Your task to perform on an android device: Go to accessibility settings Image 0: 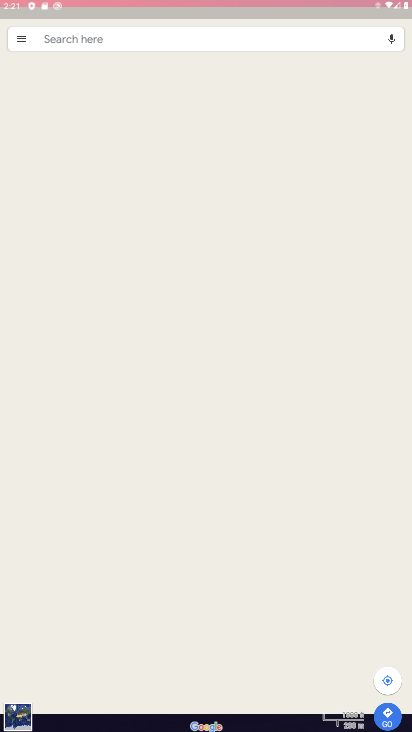
Step 0: drag from (274, 665) to (291, 175)
Your task to perform on an android device: Go to accessibility settings Image 1: 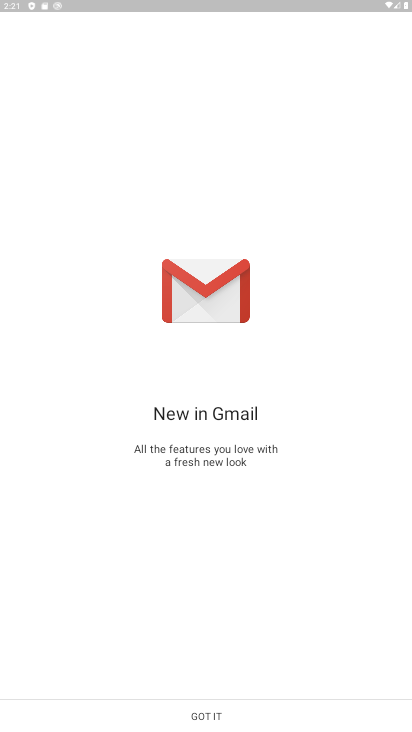
Step 1: press home button
Your task to perform on an android device: Go to accessibility settings Image 2: 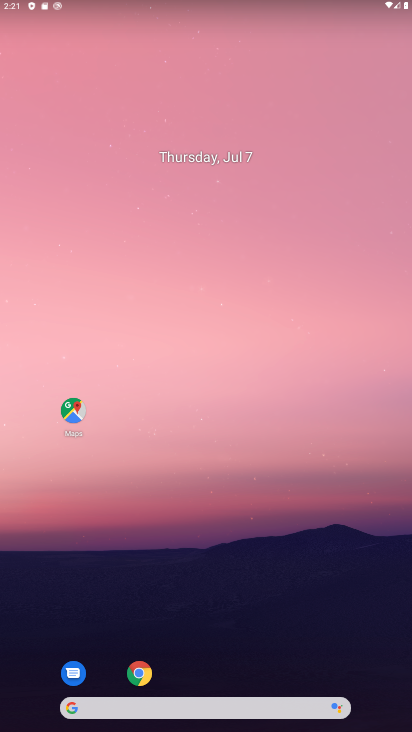
Step 2: drag from (191, 666) to (162, 158)
Your task to perform on an android device: Go to accessibility settings Image 3: 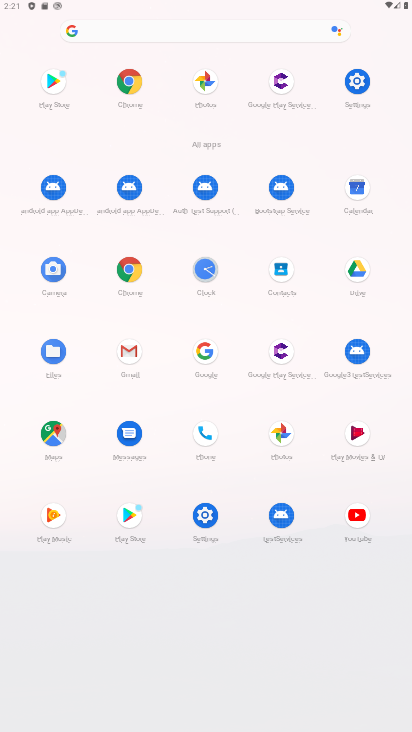
Step 3: click (352, 89)
Your task to perform on an android device: Go to accessibility settings Image 4: 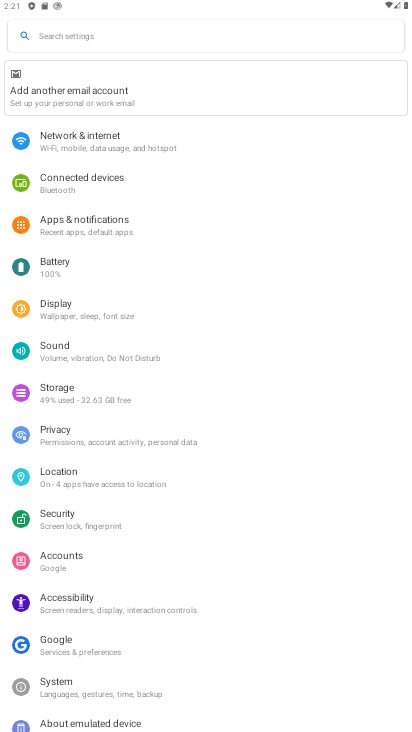
Step 4: click (99, 605)
Your task to perform on an android device: Go to accessibility settings Image 5: 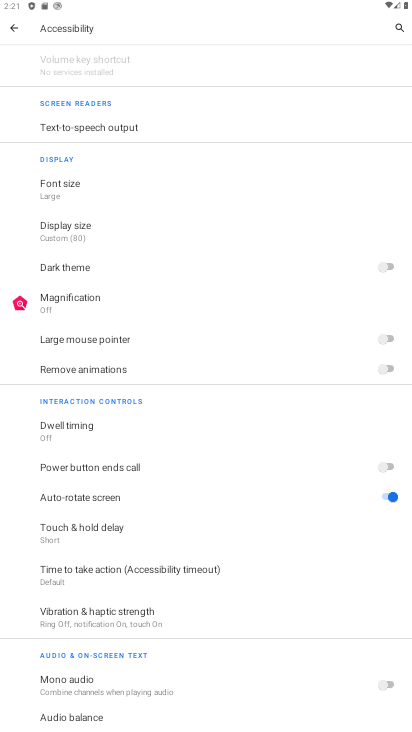
Step 5: task complete